Your task to perform on an android device: toggle notification dots Image 0: 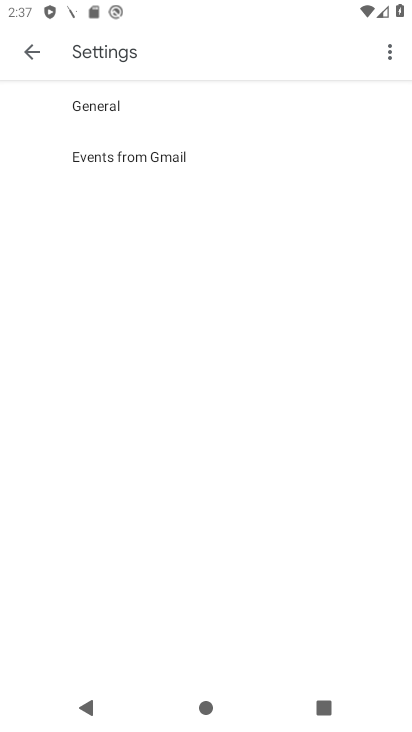
Step 0: press home button
Your task to perform on an android device: toggle notification dots Image 1: 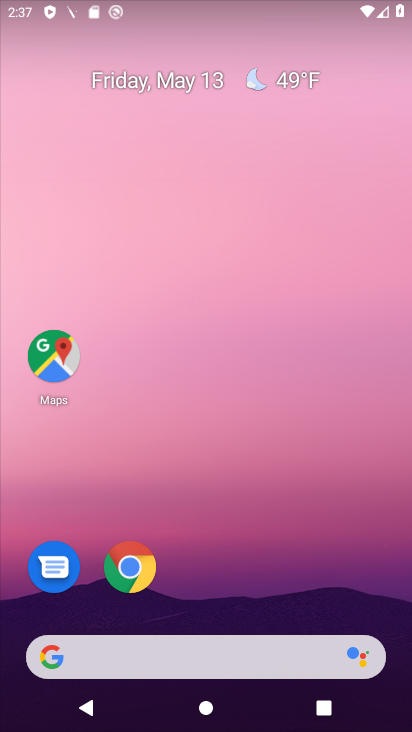
Step 1: drag from (223, 614) to (234, 6)
Your task to perform on an android device: toggle notification dots Image 2: 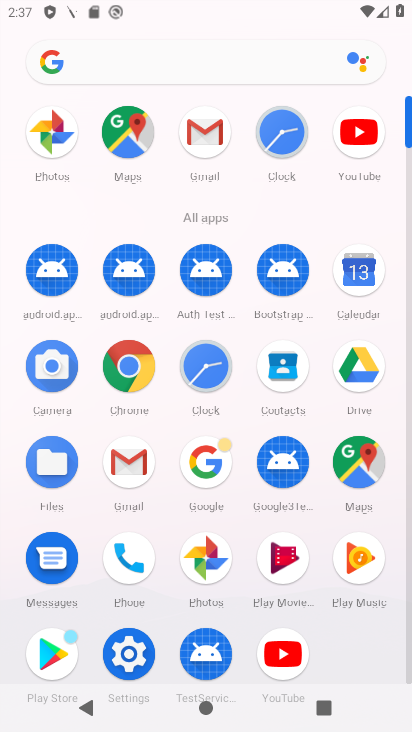
Step 2: click (113, 668)
Your task to perform on an android device: toggle notification dots Image 3: 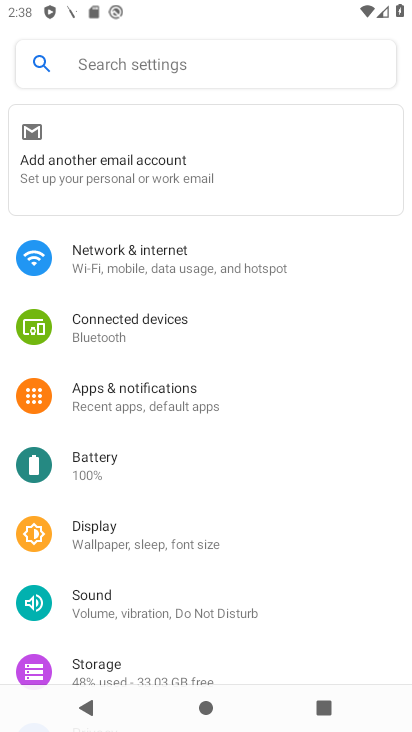
Step 3: click (149, 408)
Your task to perform on an android device: toggle notification dots Image 4: 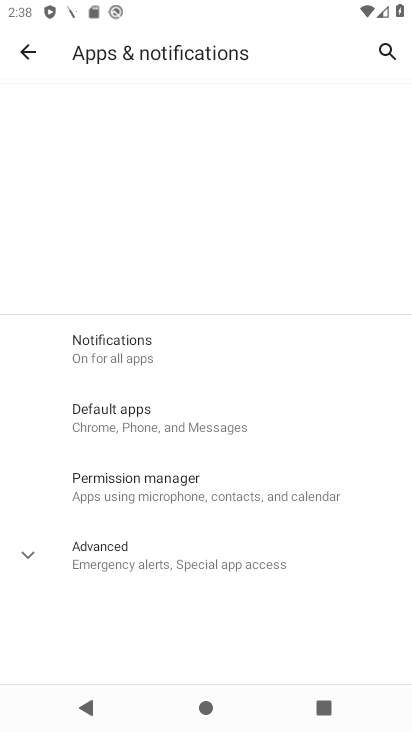
Step 4: click (137, 353)
Your task to perform on an android device: toggle notification dots Image 5: 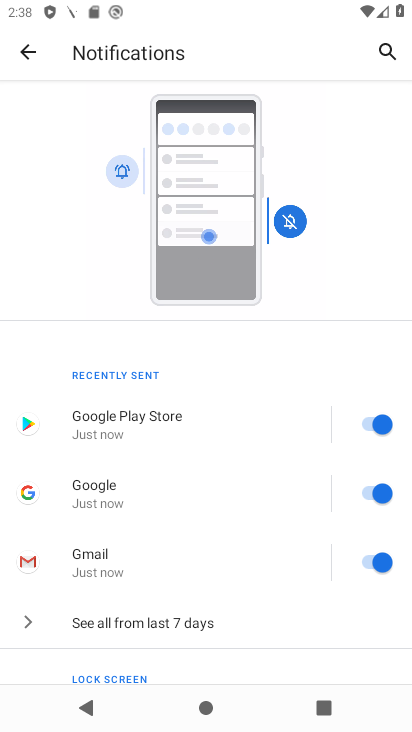
Step 5: drag from (197, 587) to (178, 412)
Your task to perform on an android device: toggle notification dots Image 6: 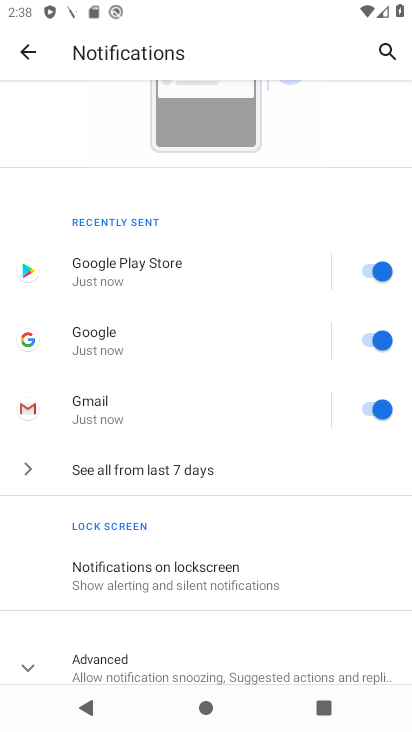
Step 6: click (170, 683)
Your task to perform on an android device: toggle notification dots Image 7: 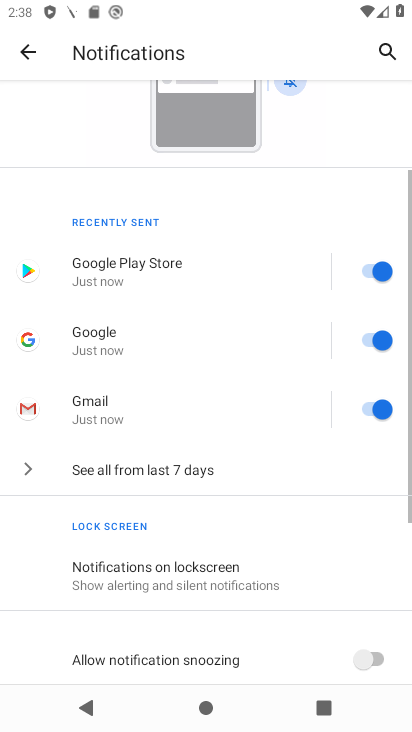
Step 7: drag from (173, 668) to (154, 368)
Your task to perform on an android device: toggle notification dots Image 8: 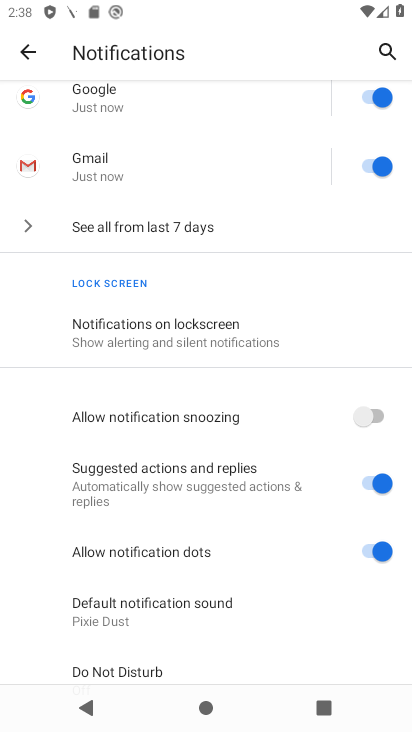
Step 8: click (369, 542)
Your task to perform on an android device: toggle notification dots Image 9: 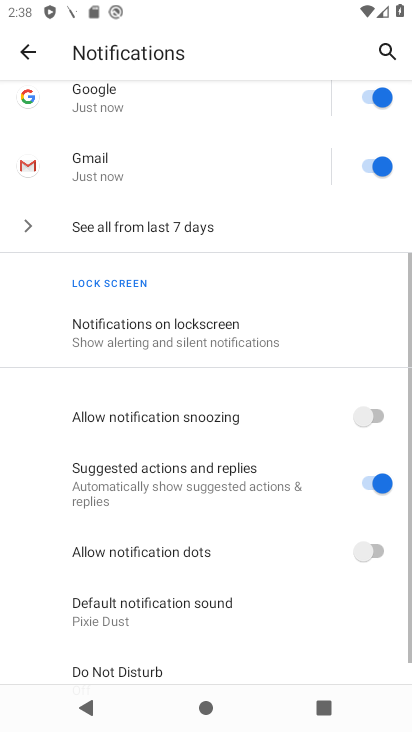
Step 9: task complete